Your task to perform on an android device: toggle priority inbox in the gmail app Image 0: 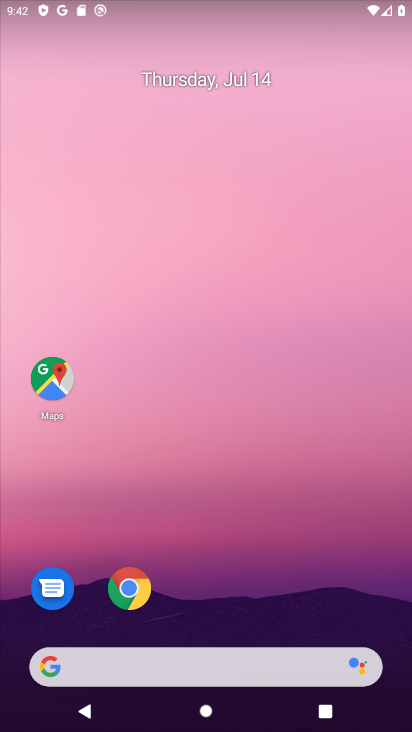
Step 0: drag from (147, 633) to (267, 209)
Your task to perform on an android device: toggle priority inbox in the gmail app Image 1: 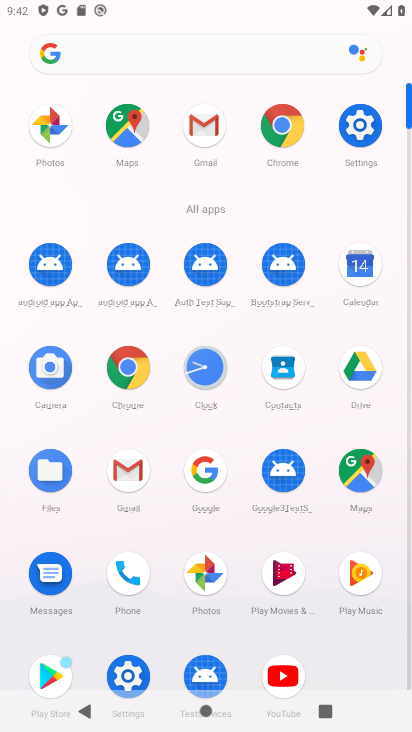
Step 1: click (207, 131)
Your task to perform on an android device: toggle priority inbox in the gmail app Image 2: 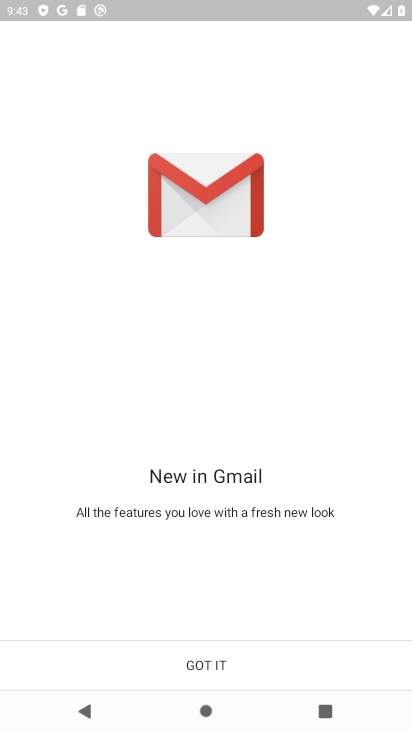
Step 2: click (212, 664)
Your task to perform on an android device: toggle priority inbox in the gmail app Image 3: 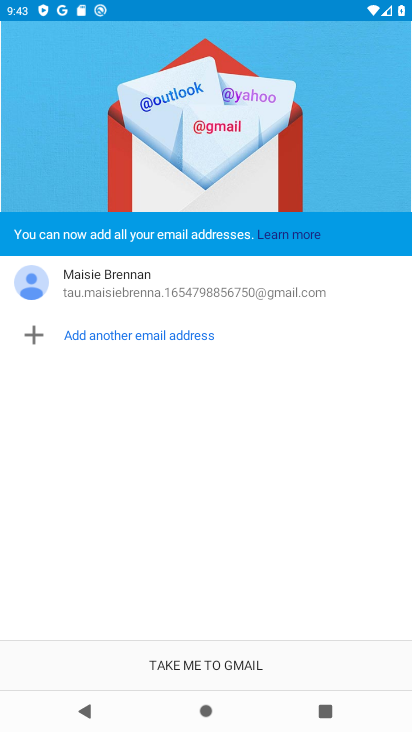
Step 3: click (212, 664)
Your task to perform on an android device: toggle priority inbox in the gmail app Image 4: 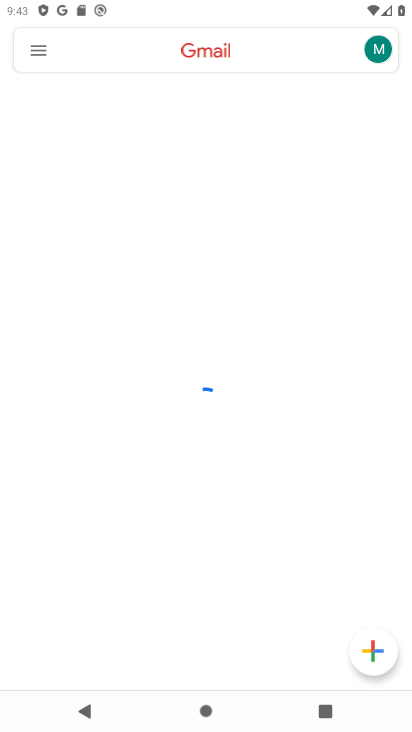
Step 4: click (37, 50)
Your task to perform on an android device: toggle priority inbox in the gmail app Image 5: 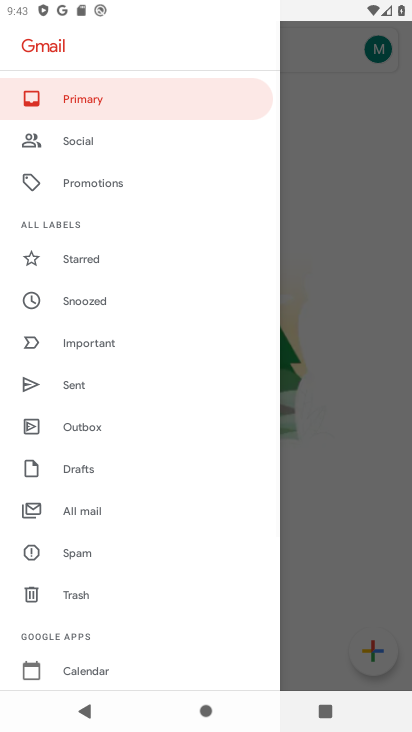
Step 5: drag from (108, 631) to (252, 141)
Your task to perform on an android device: toggle priority inbox in the gmail app Image 6: 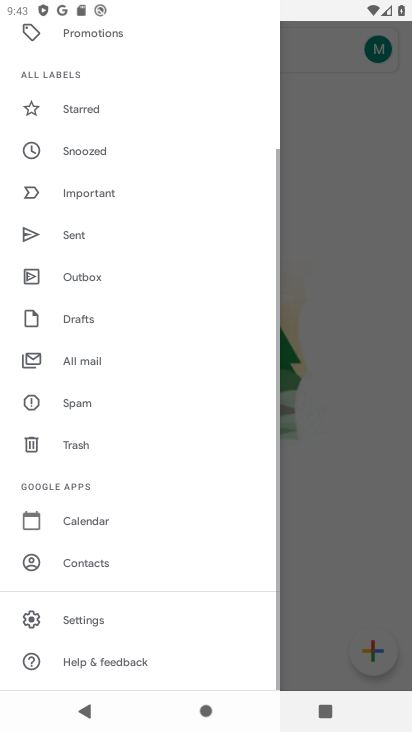
Step 6: click (104, 621)
Your task to perform on an android device: toggle priority inbox in the gmail app Image 7: 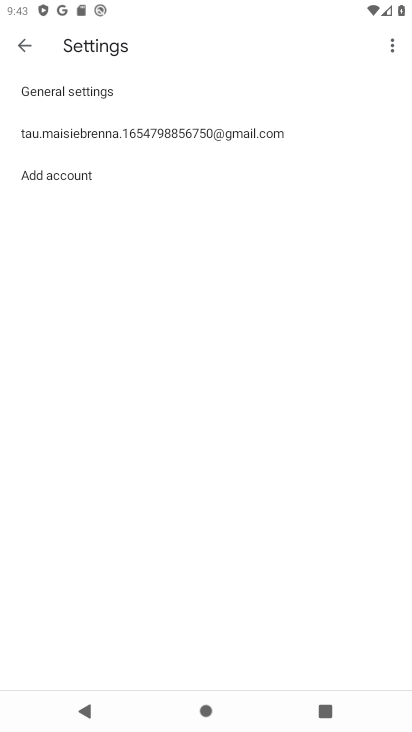
Step 7: click (153, 130)
Your task to perform on an android device: toggle priority inbox in the gmail app Image 8: 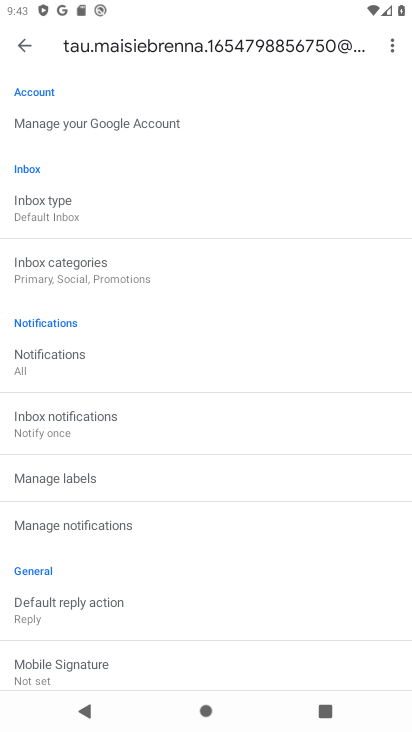
Step 8: click (68, 209)
Your task to perform on an android device: toggle priority inbox in the gmail app Image 9: 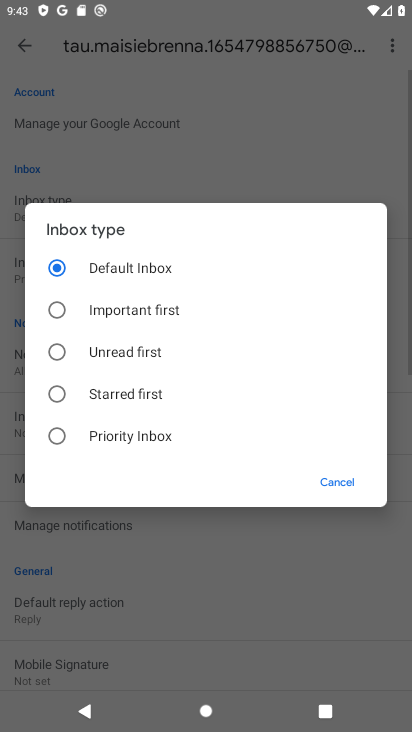
Step 9: click (55, 437)
Your task to perform on an android device: toggle priority inbox in the gmail app Image 10: 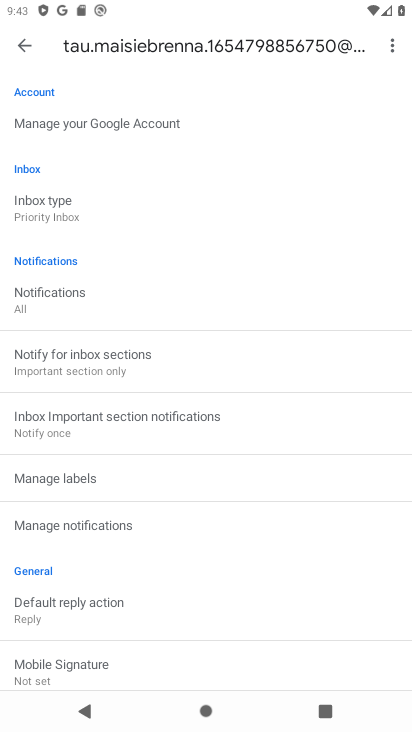
Step 10: task complete